Your task to perform on an android device: Open sound settings Image 0: 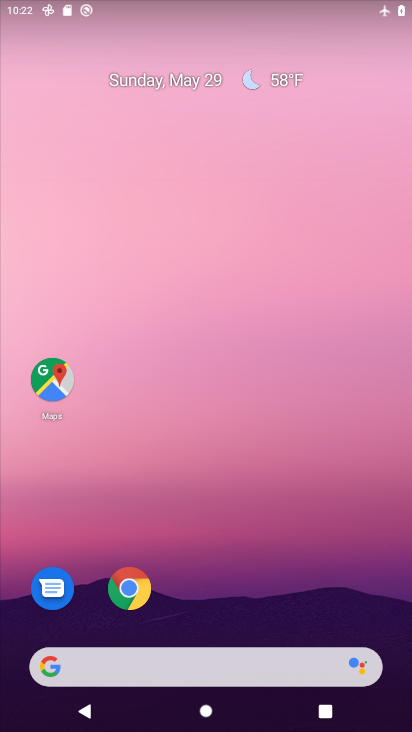
Step 0: drag from (227, 472) to (234, 13)
Your task to perform on an android device: Open sound settings Image 1: 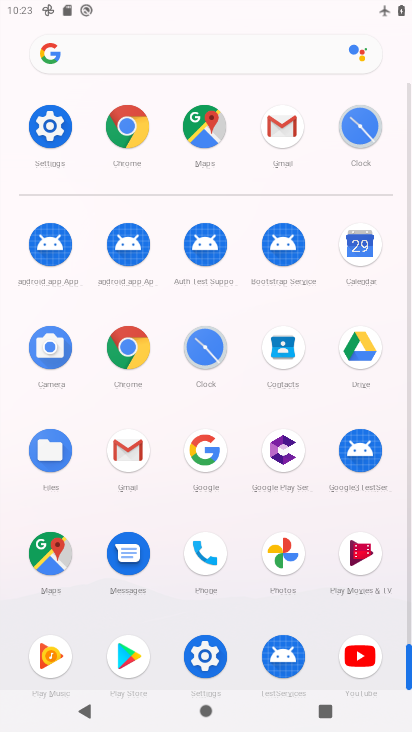
Step 1: click (57, 122)
Your task to perform on an android device: Open sound settings Image 2: 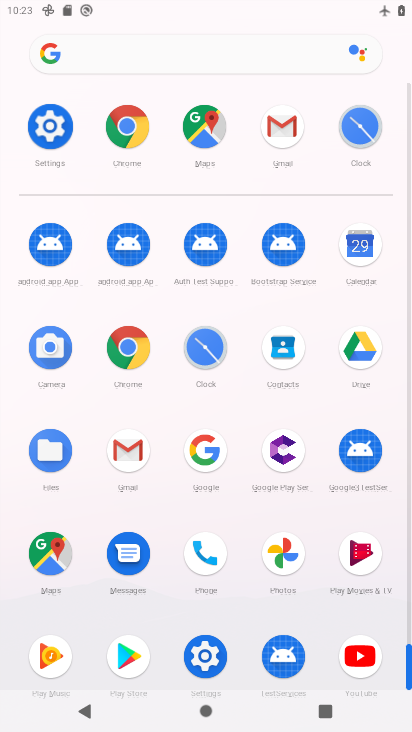
Step 2: click (57, 122)
Your task to perform on an android device: Open sound settings Image 3: 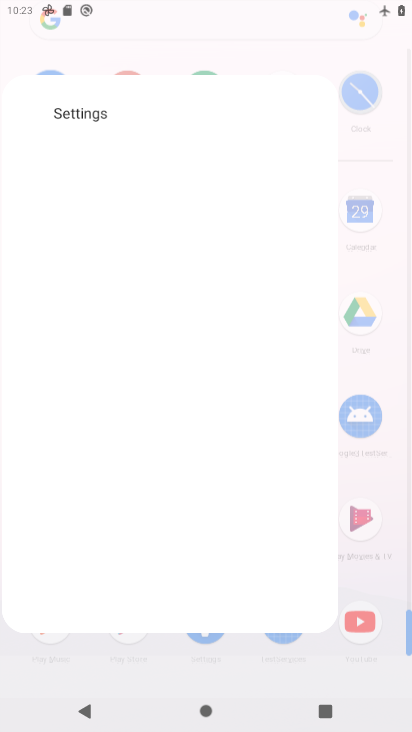
Step 3: click (57, 122)
Your task to perform on an android device: Open sound settings Image 4: 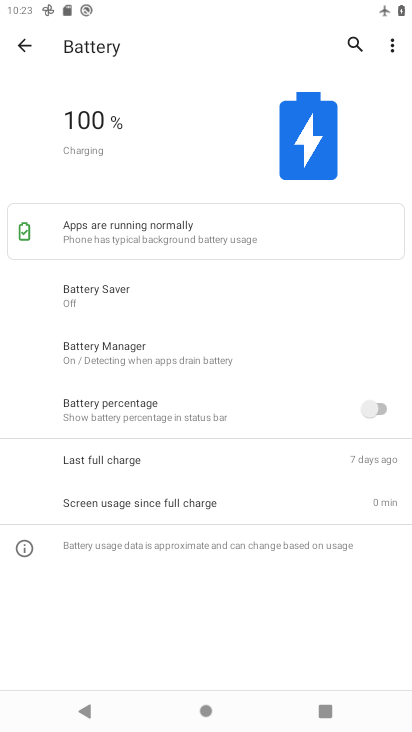
Step 4: click (20, 50)
Your task to perform on an android device: Open sound settings Image 5: 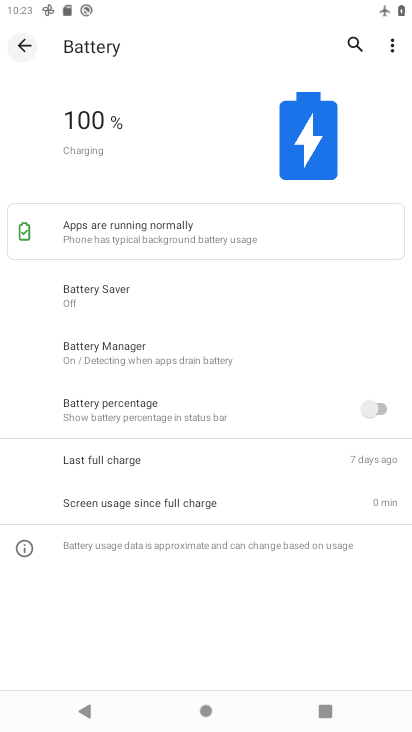
Step 5: click (27, 43)
Your task to perform on an android device: Open sound settings Image 6: 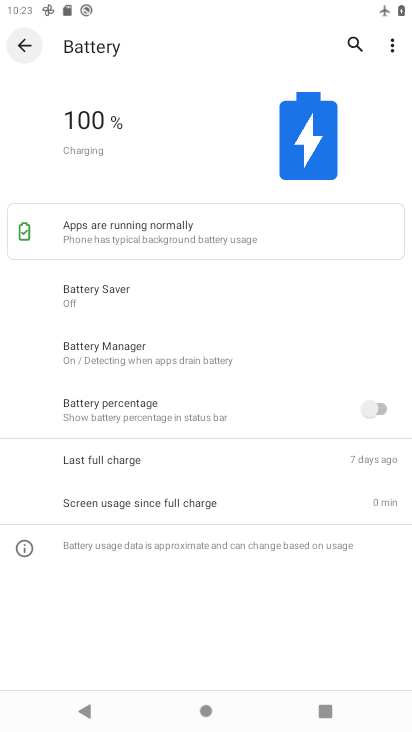
Step 6: click (27, 43)
Your task to perform on an android device: Open sound settings Image 7: 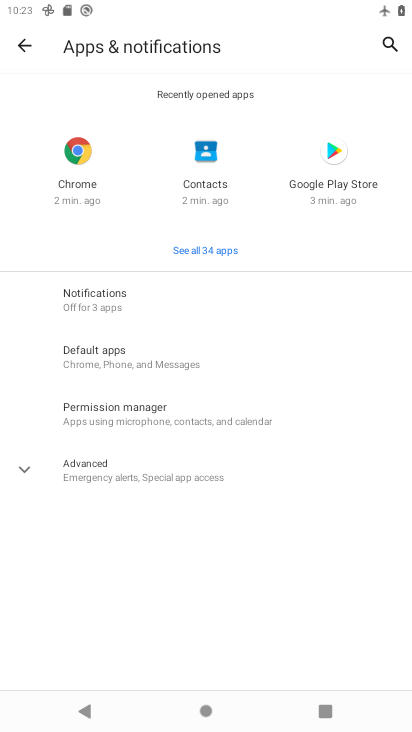
Step 7: click (35, 49)
Your task to perform on an android device: Open sound settings Image 8: 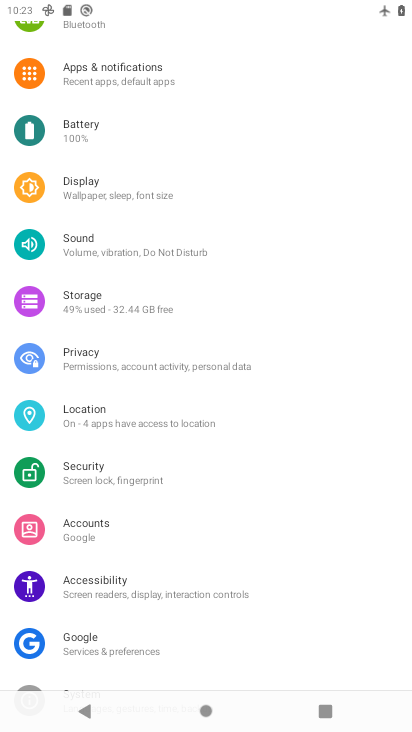
Step 8: click (81, 225)
Your task to perform on an android device: Open sound settings Image 9: 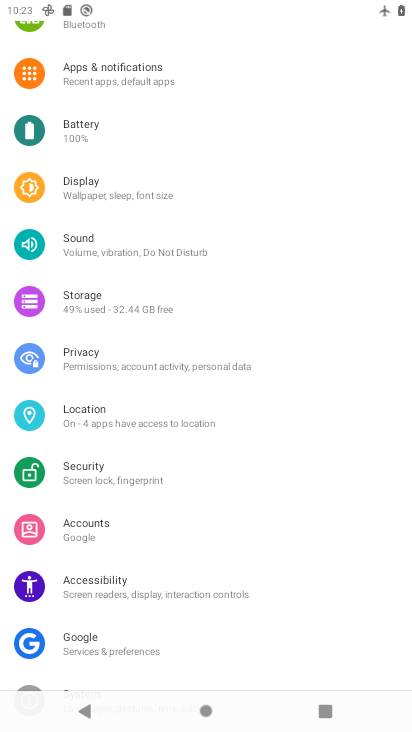
Step 9: click (81, 242)
Your task to perform on an android device: Open sound settings Image 10: 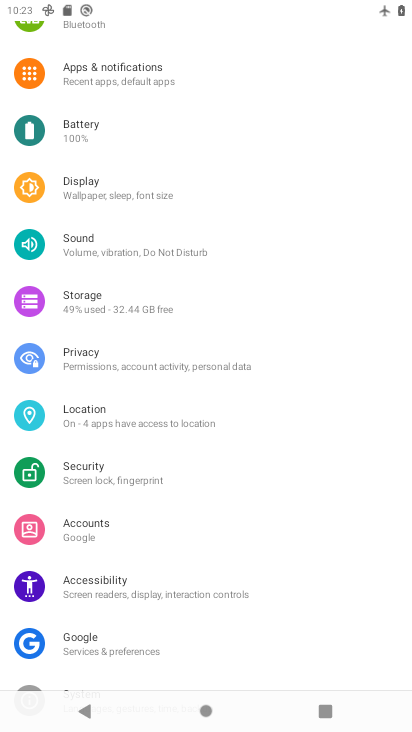
Step 10: click (82, 243)
Your task to perform on an android device: Open sound settings Image 11: 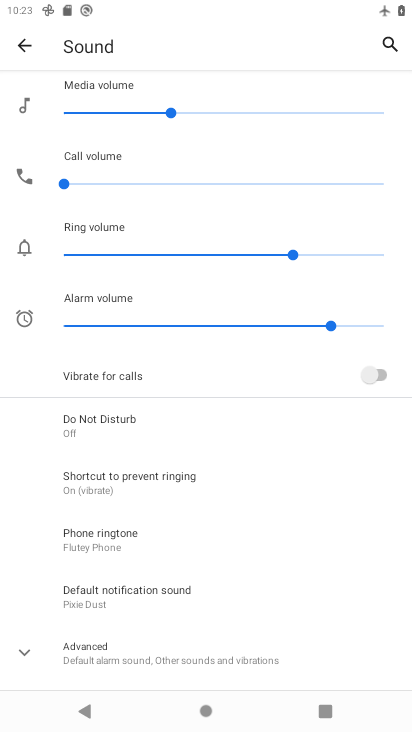
Step 11: click (82, 243)
Your task to perform on an android device: Open sound settings Image 12: 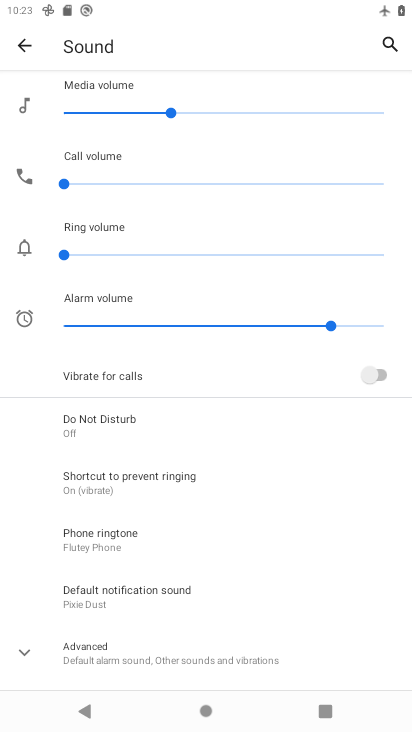
Step 12: task complete